Your task to perform on an android device: stop showing notifications on the lock screen Image 0: 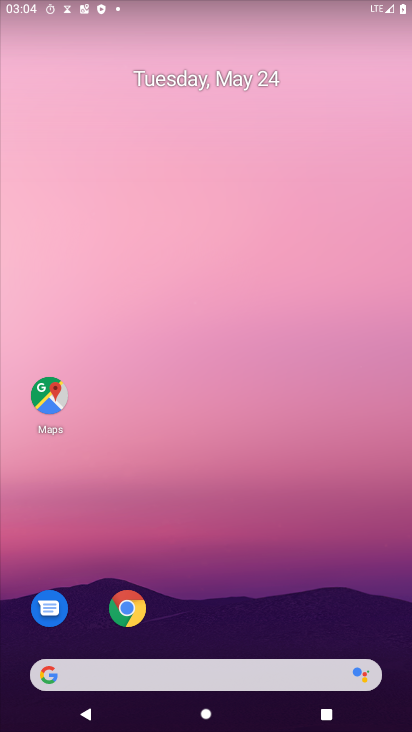
Step 0: drag from (250, 630) to (241, 264)
Your task to perform on an android device: stop showing notifications on the lock screen Image 1: 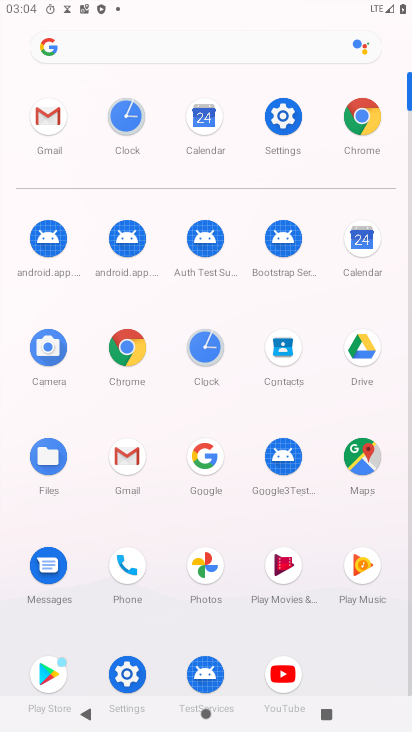
Step 1: click (283, 128)
Your task to perform on an android device: stop showing notifications on the lock screen Image 2: 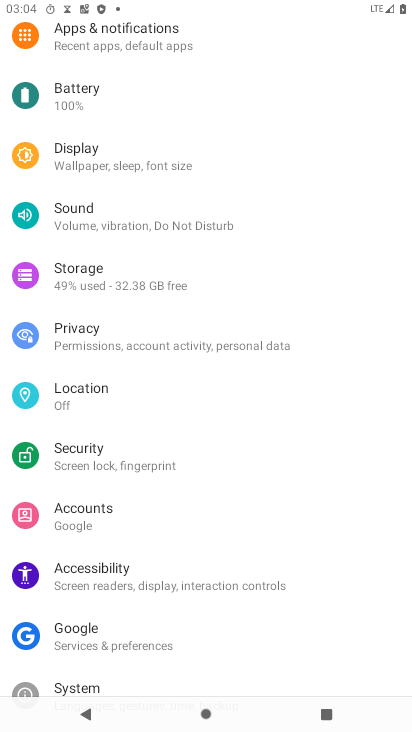
Step 2: click (205, 40)
Your task to perform on an android device: stop showing notifications on the lock screen Image 3: 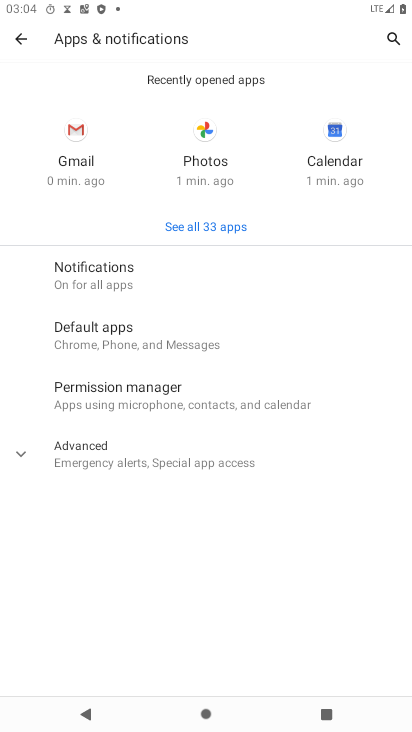
Step 3: click (191, 276)
Your task to perform on an android device: stop showing notifications on the lock screen Image 4: 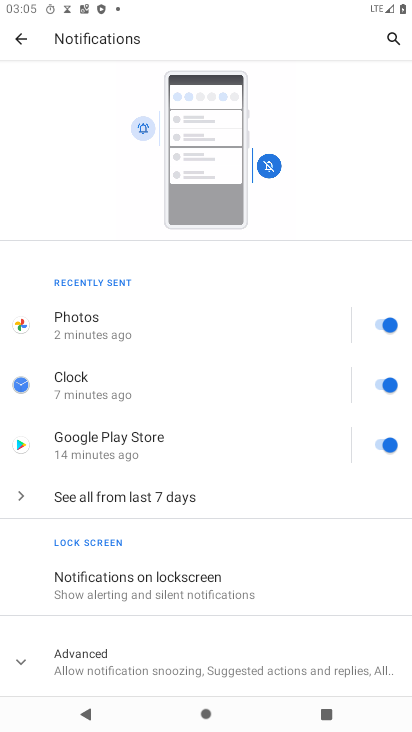
Step 4: click (221, 578)
Your task to perform on an android device: stop showing notifications on the lock screen Image 5: 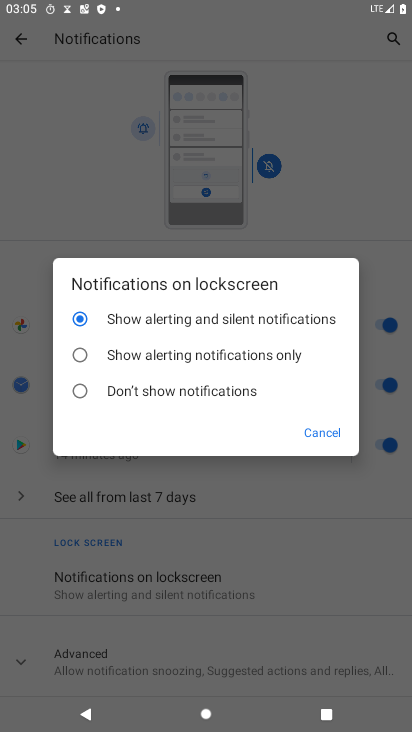
Step 5: click (200, 393)
Your task to perform on an android device: stop showing notifications on the lock screen Image 6: 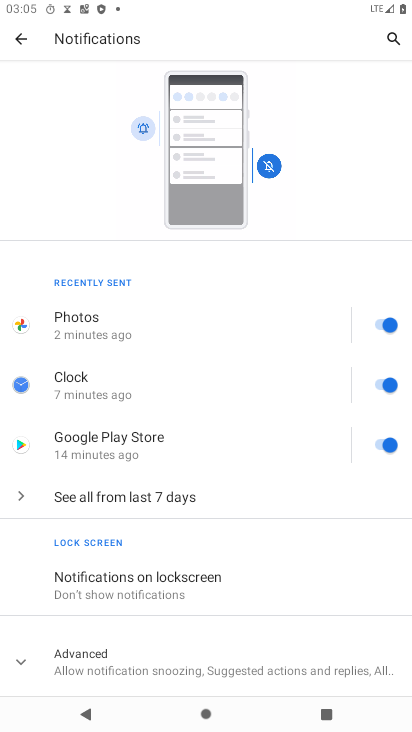
Step 6: task complete